Your task to perform on an android device: open app "Spotify" Image 0: 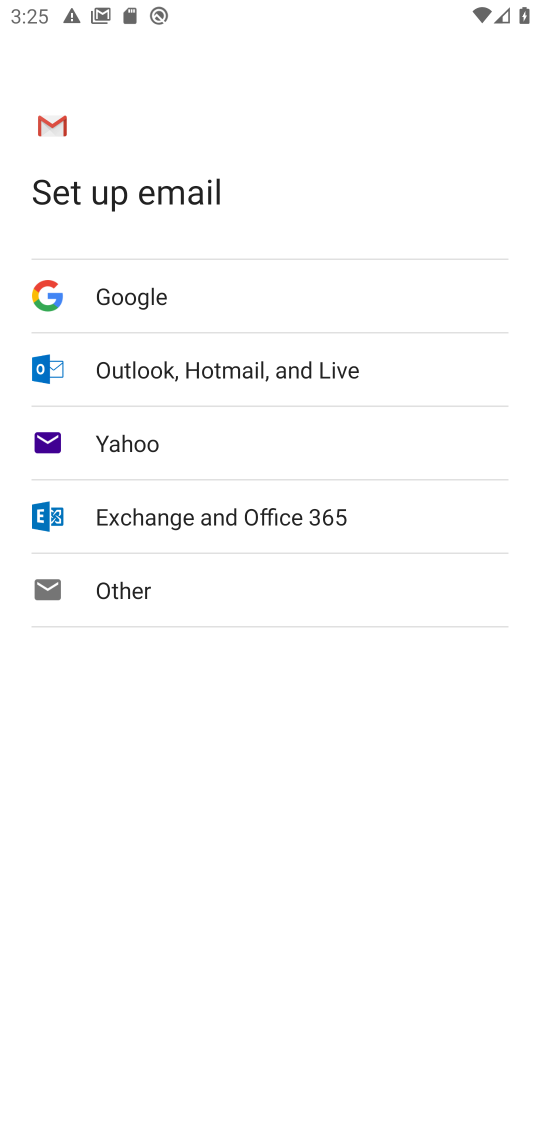
Step 0: press home button
Your task to perform on an android device: open app "Spotify" Image 1: 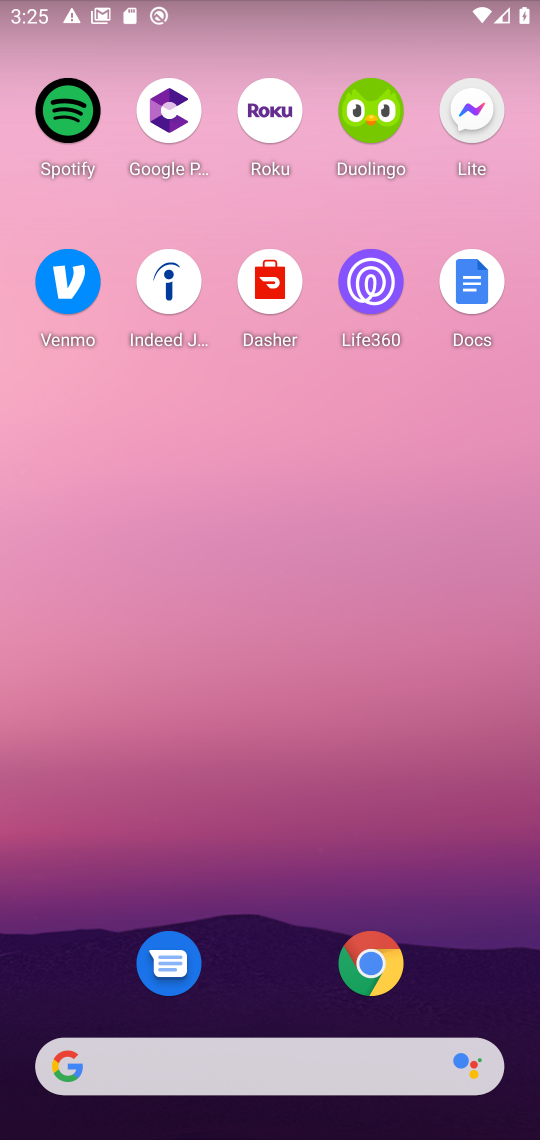
Step 1: click (54, 125)
Your task to perform on an android device: open app "Spotify" Image 2: 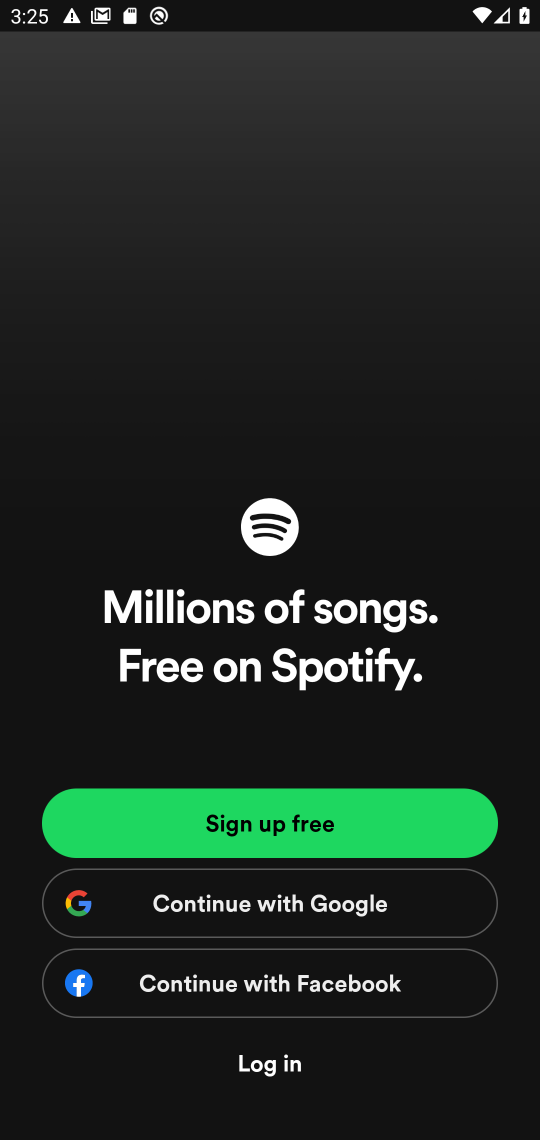
Step 2: task complete